Your task to perform on an android device: set default search engine in the chrome app Image 0: 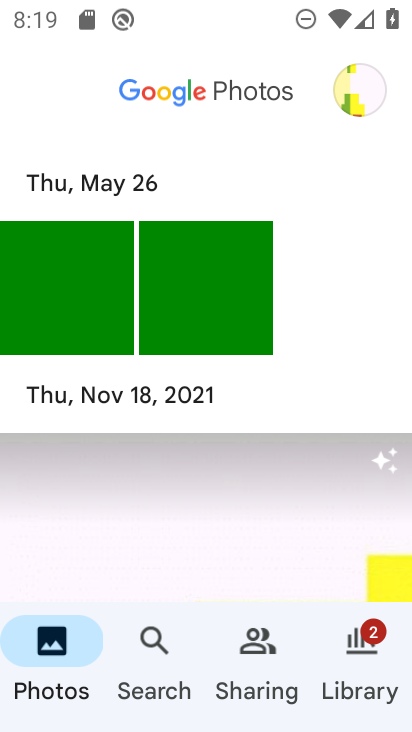
Step 0: press back button
Your task to perform on an android device: set default search engine in the chrome app Image 1: 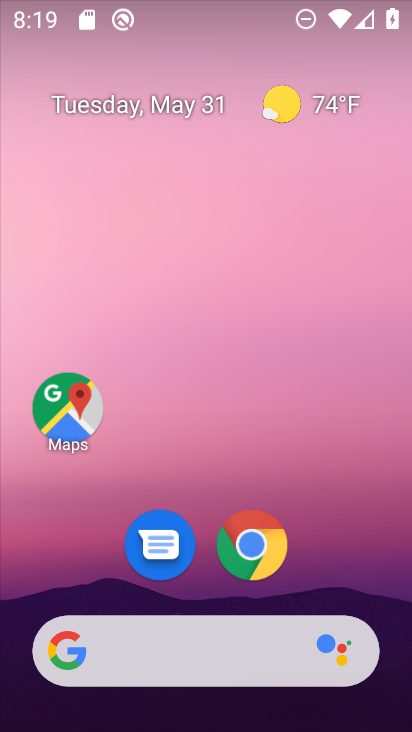
Step 1: drag from (348, 537) to (202, 3)
Your task to perform on an android device: set default search engine in the chrome app Image 2: 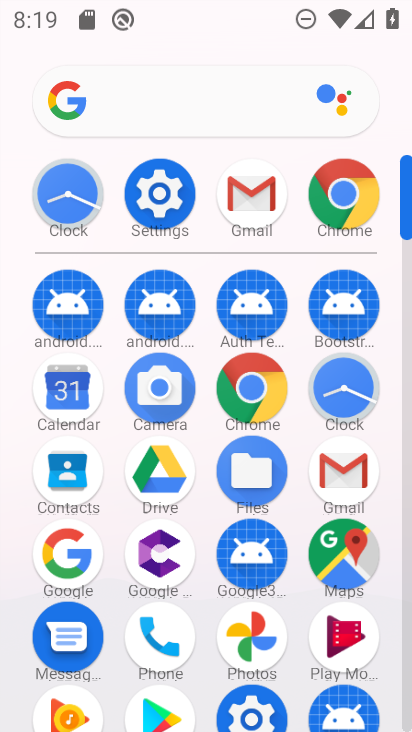
Step 2: drag from (8, 585) to (16, 217)
Your task to perform on an android device: set default search engine in the chrome app Image 3: 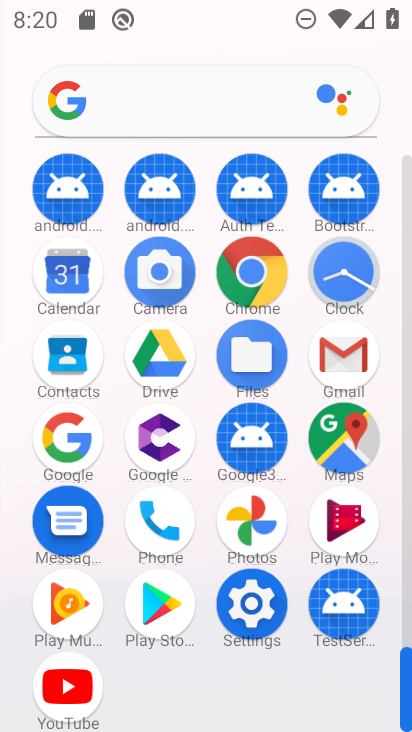
Step 3: click (246, 272)
Your task to perform on an android device: set default search engine in the chrome app Image 4: 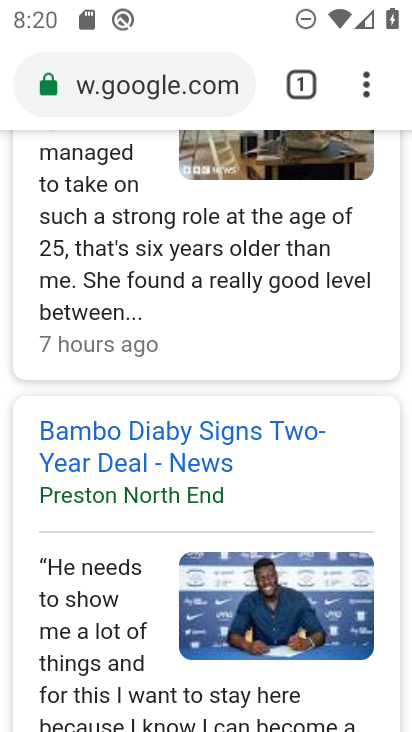
Step 4: drag from (365, 76) to (154, 585)
Your task to perform on an android device: set default search engine in the chrome app Image 5: 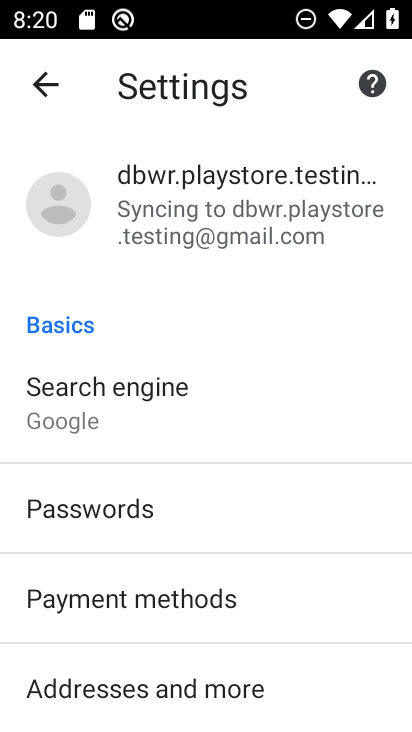
Step 5: click (122, 392)
Your task to perform on an android device: set default search engine in the chrome app Image 6: 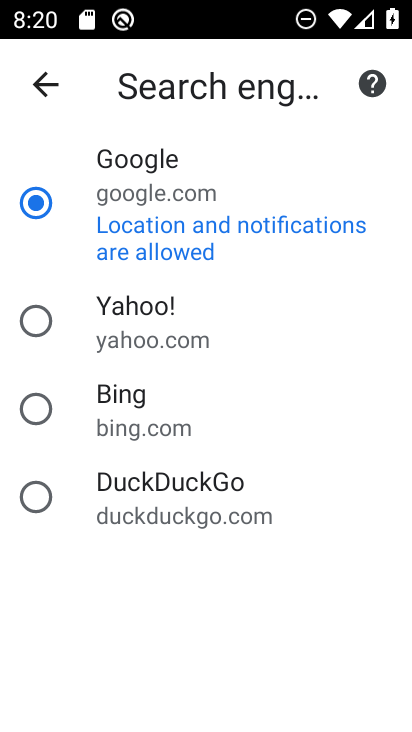
Step 6: click (134, 180)
Your task to perform on an android device: set default search engine in the chrome app Image 7: 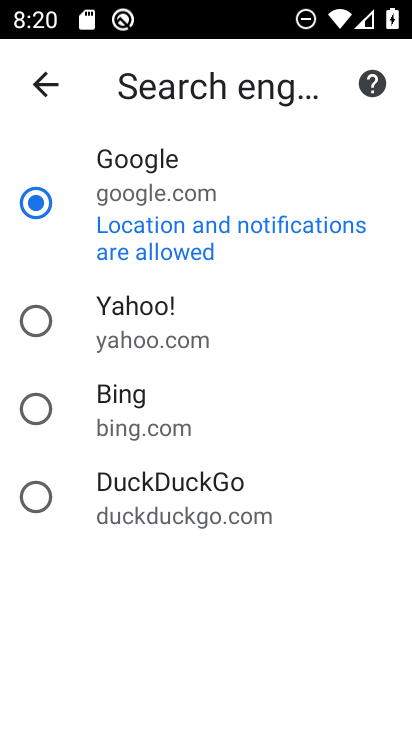
Step 7: task complete